Your task to perform on an android device: delete location history Image 0: 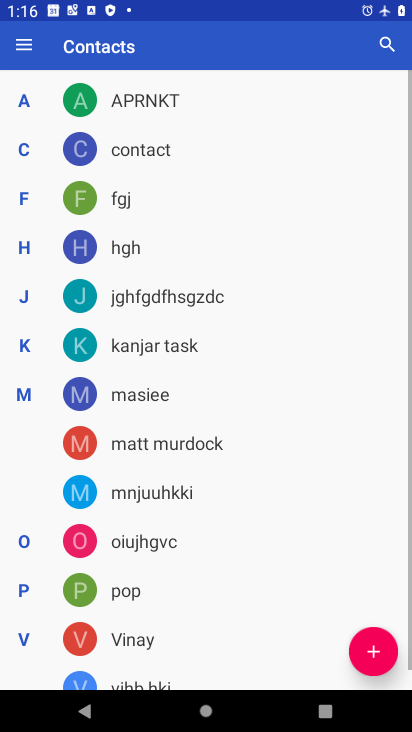
Step 0: press home button
Your task to perform on an android device: delete location history Image 1: 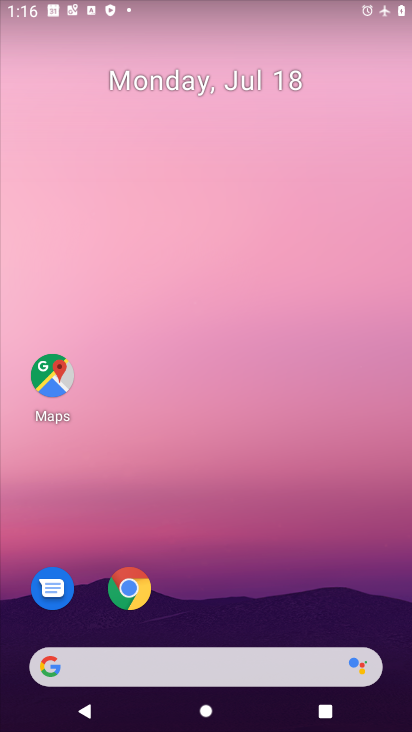
Step 1: drag from (235, 675) to (225, 224)
Your task to perform on an android device: delete location history Image 2: 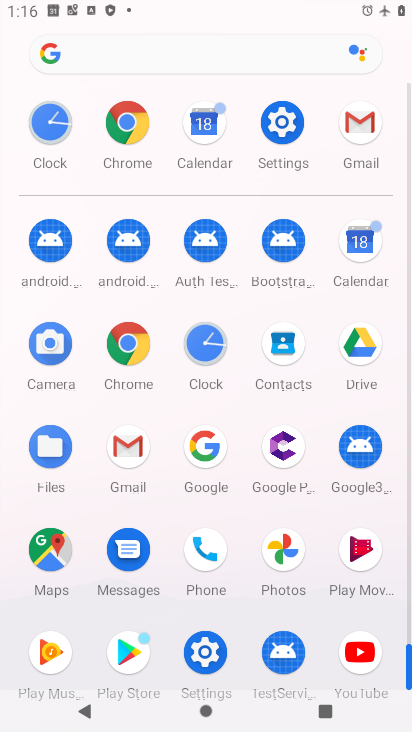
Step 2: click (281, 136)
Your task to perform on an android device: delete location history Image 3: 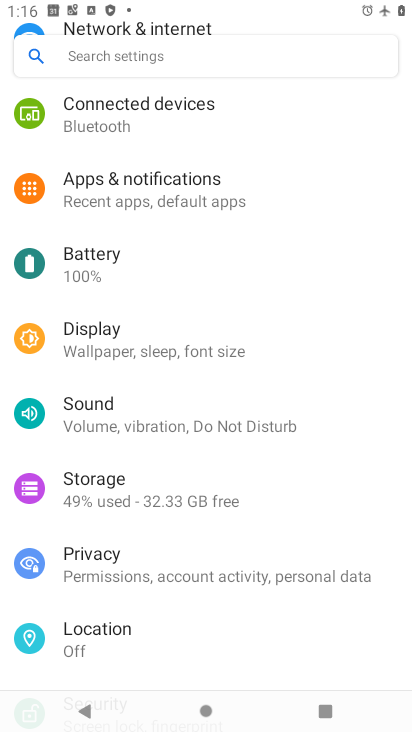
Step 3: drag from (160, 320) to (157, 541)
Your task to perform on an android device: delete location history Image 4: 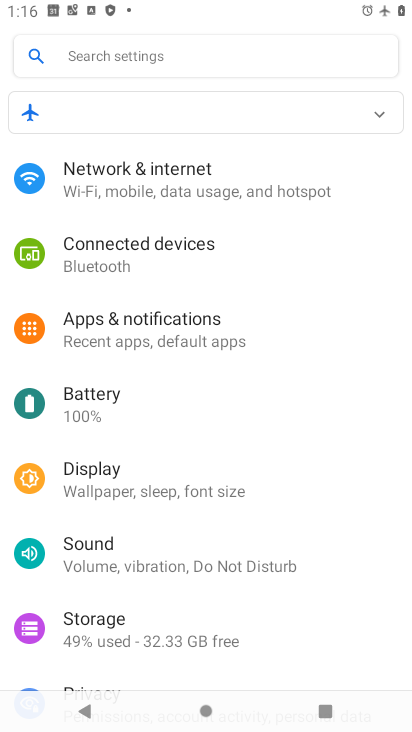
Step 4: drag from (158, 577) to (179, 322)
Your task to perform on an android device: delete location history Image 5: 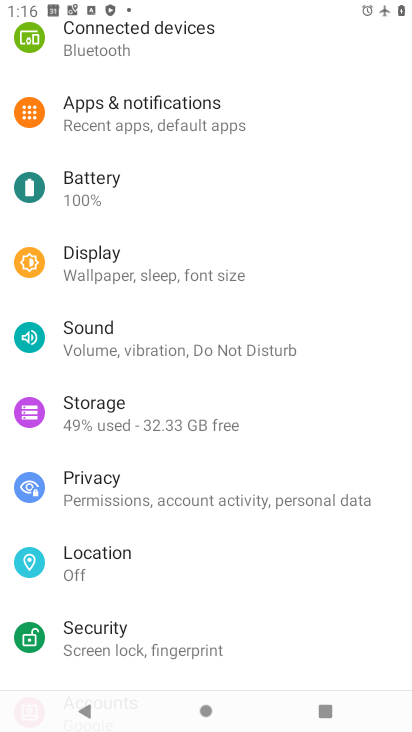
Step 5: click (157, 569)
Your task to perform on an android device: delete location history Image 6: 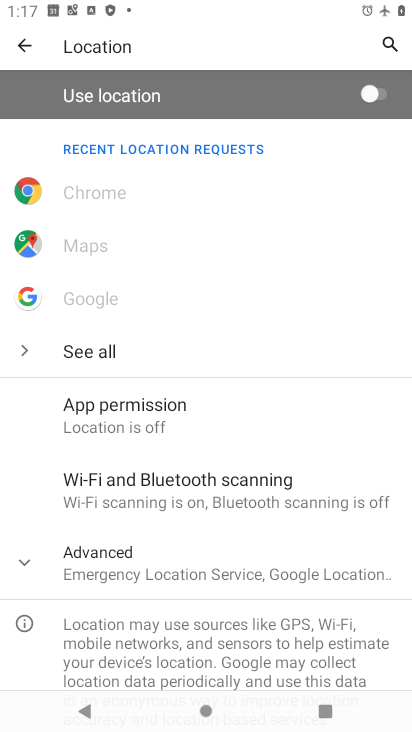
Step 6: click (128, 573)
Your task to perform on an android device: delete location history Image 7: 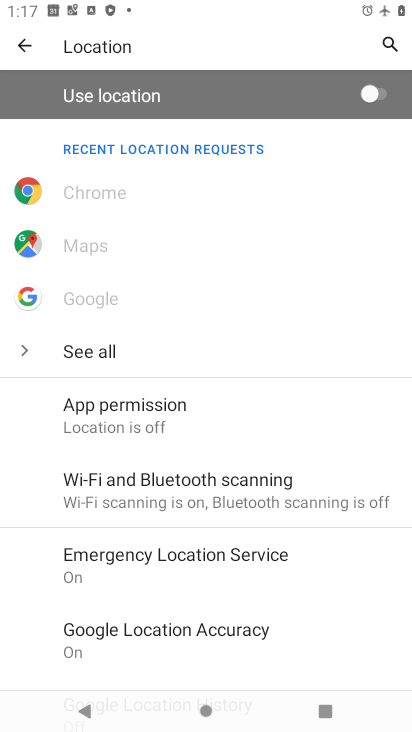
Step 7: drag from (144, 570) to (167, 344)
Your task to perform on an android device: delete location history Image 8: 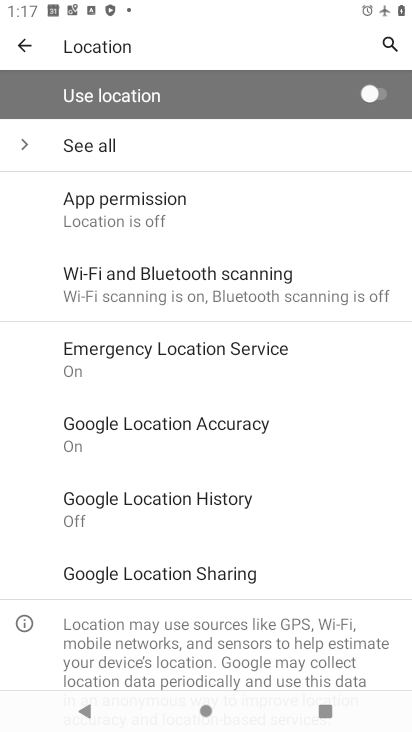
Step 8: click (198, 508)
Your task to perform on an android device: delete location history Image 9: 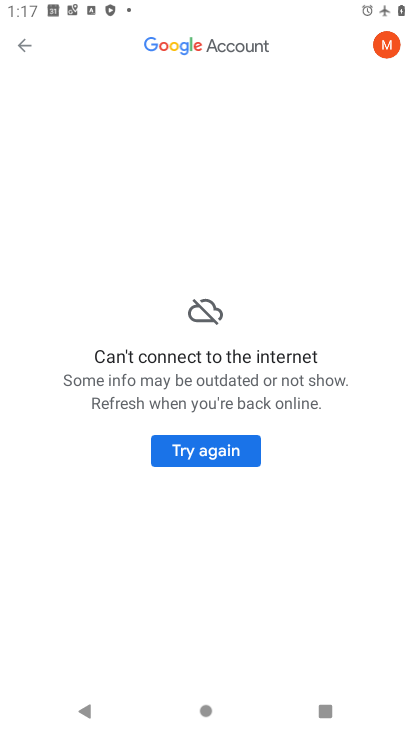
Step 9: task complete